Your task to perform on an android device: Go to accessibility settings Image 0: 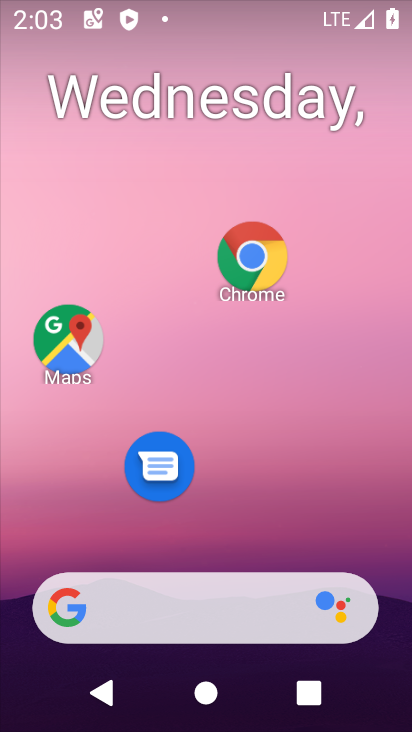
Step 0: drag from (284, 453) to (311, 92)
Your task to perform on an android device: Go to accessibility settings Image 1: 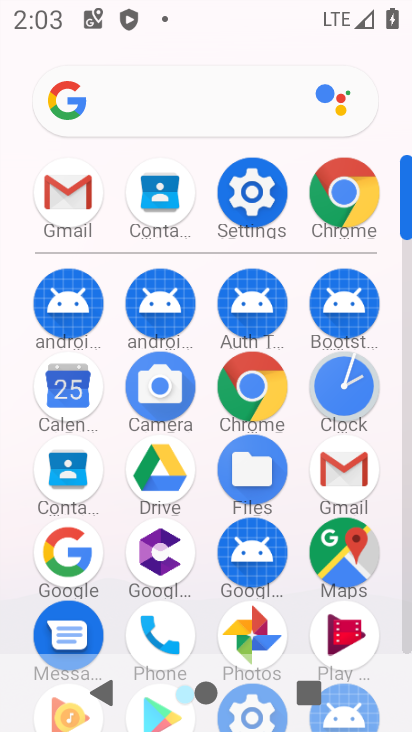
Step 1: drag from (210, 238) to (253, 42)
Your task to perform on an android device: Go to accessibility settings Image 2: 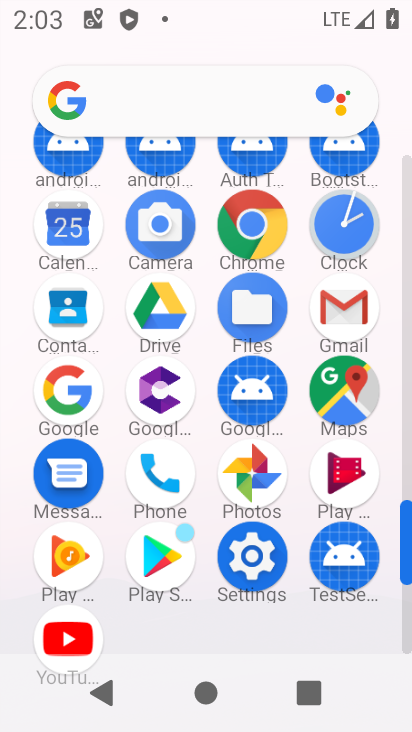
Step 2: click (249, 566)
Your task to perform on an android device: Go to accessibility settings Image 3: 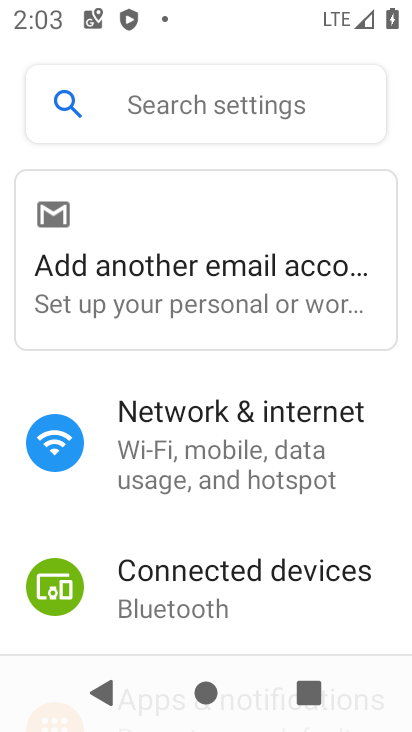
Step 3: drag from (221, 558) to (320, 173)
Your task to perform on an android device: Go to accessibility settings Image 4: 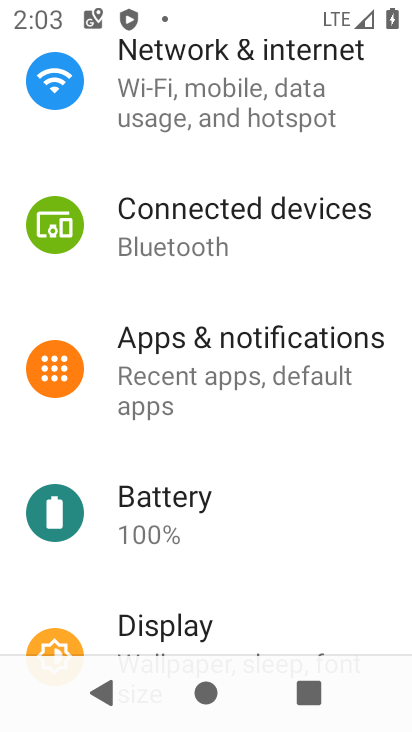
Step 4: drag from (259, 422) to (225, 40)
Your task to perform on an android device: Go to accessibility settings Image 5: 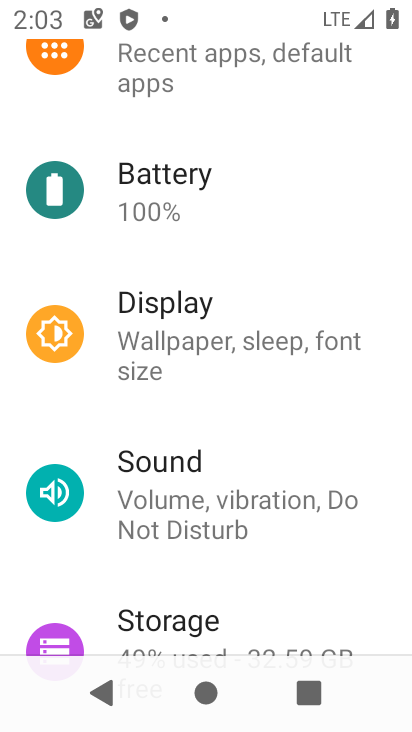
Step 5: drag from (301, 568) to (283, 190)
Your task to perform on an android device: Go to accessibility settings Image 6: 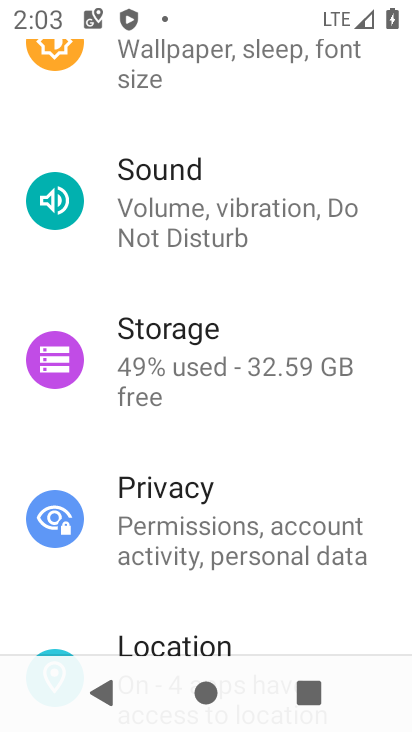
Step 6: drag from (251, 478) to (372, 121)
Your task to perform on an android device: Go to accessibility settings Image 7: 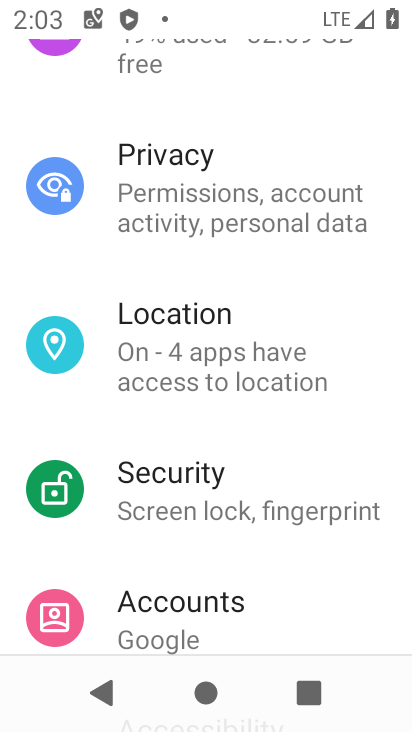
Step 7: drag from (294, 397) to (398, 59)
Your task to perform on an android device: Go to accessibility settings Image 8: 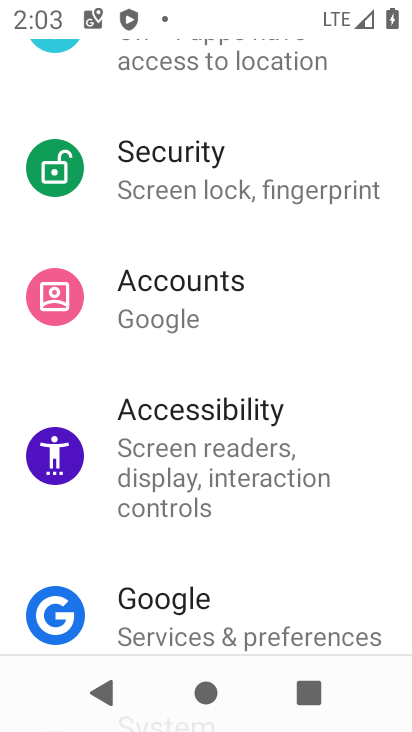
Step 8: click (196, 472)
Your task to perform on an android device: Go to accessibility settings Image 9: 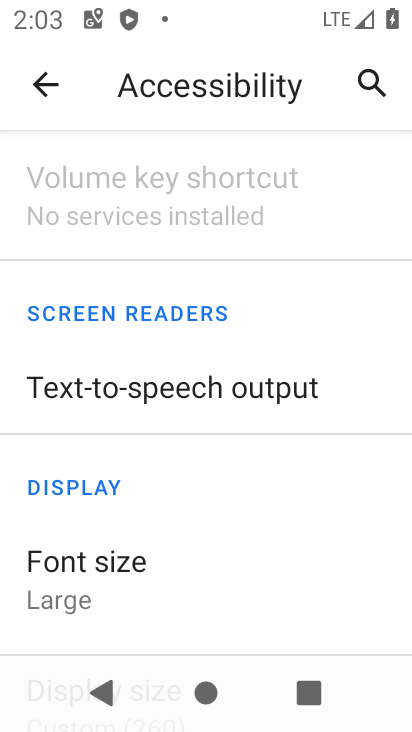
Step 9: task complete